Your task to perform on an android device: Go to CNN.com Image 0: 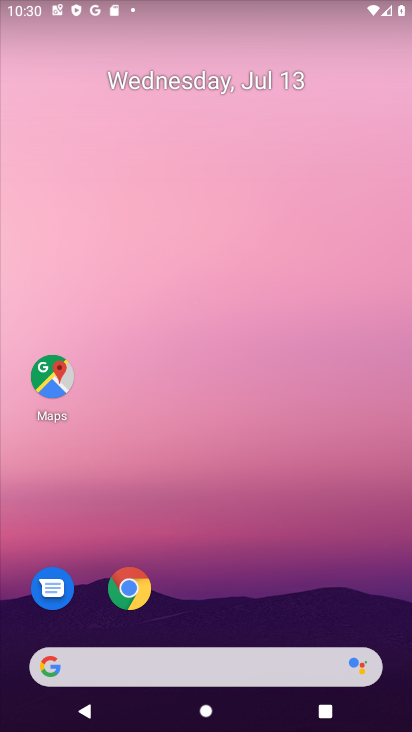
Step 0: drag from (227, 599) to (242, 125)
Your task to perform on an android device: Go to CNN.com Image 1: 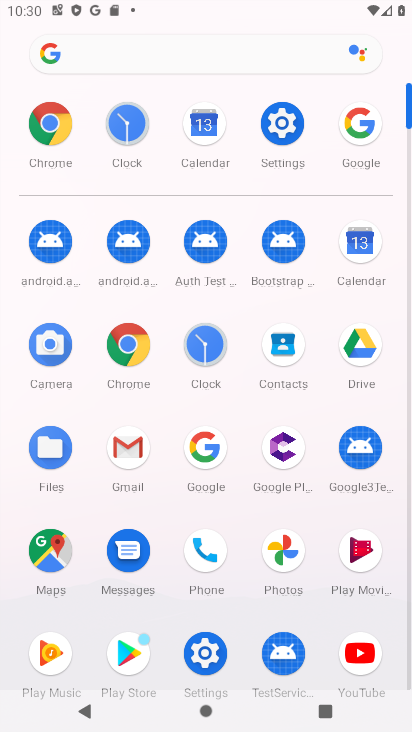
Step 1: click (212, 459)
Your task to perform on an android device: Go to CNN.com Image 2: 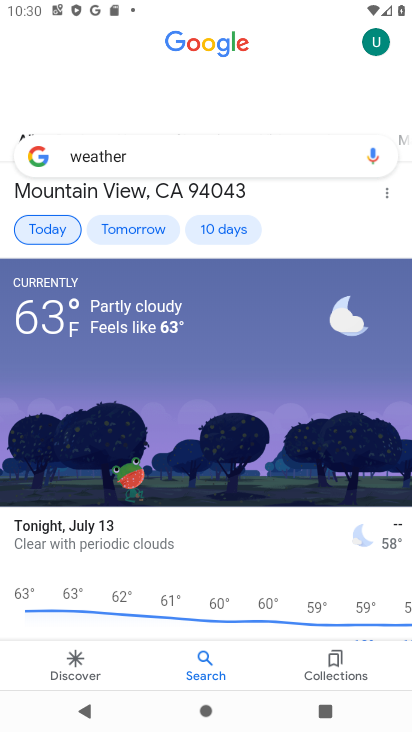
Step 2: click (214, 157)
Your task to perform on an android device: Go to CNN.com Image 3: 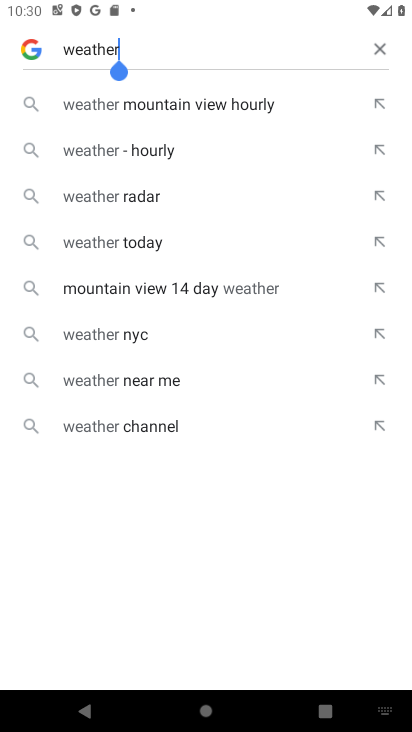
Step 3: click (383, 51)
Your task to perform on an android device: Go to CNN.com Image 4: 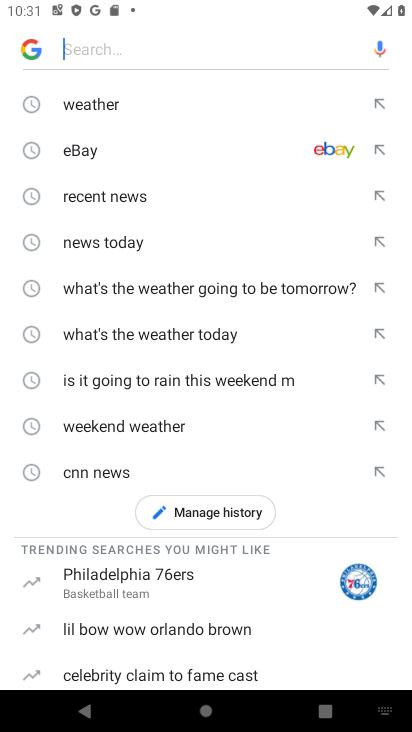
Step 4: type "cnn.com"
Your task to perform on an android device: Go to CNN.com Image 5: 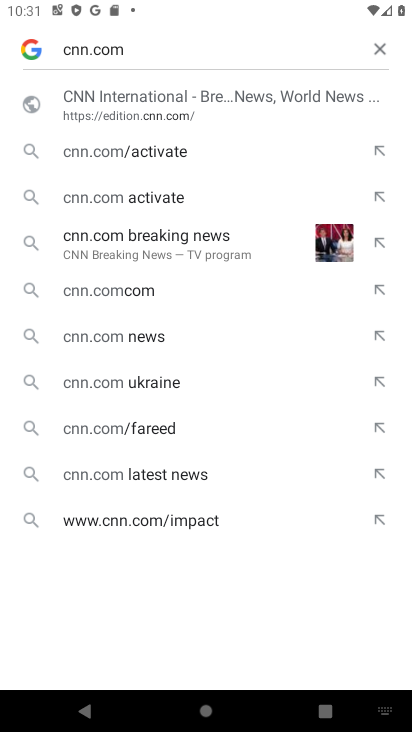
Step 5: click (186, 101)
Your task to perform on an android device: Go to CNN.com Image 6: 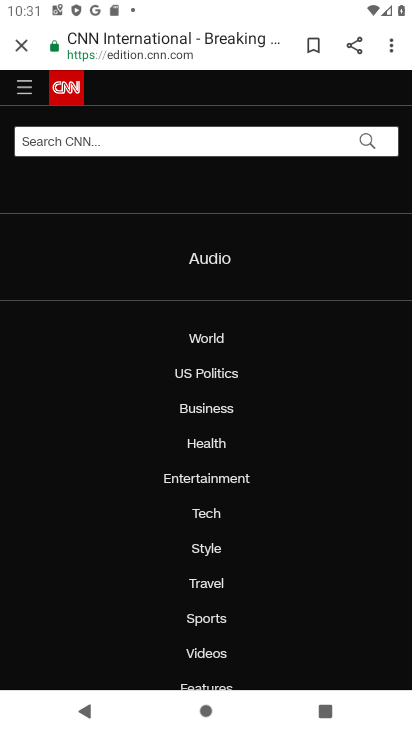
Step 6: task complete